Your task to perform on an android device: clear history in the chrome app Image 0: 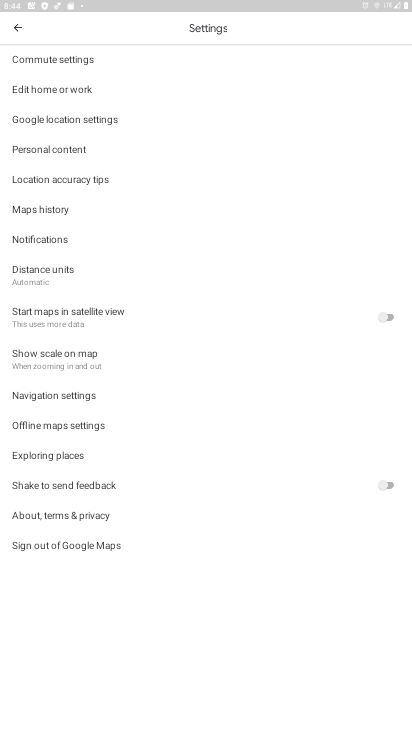
Step 0: press home button
Your task to perform on an android device: clear history in the chrome app Image 1: 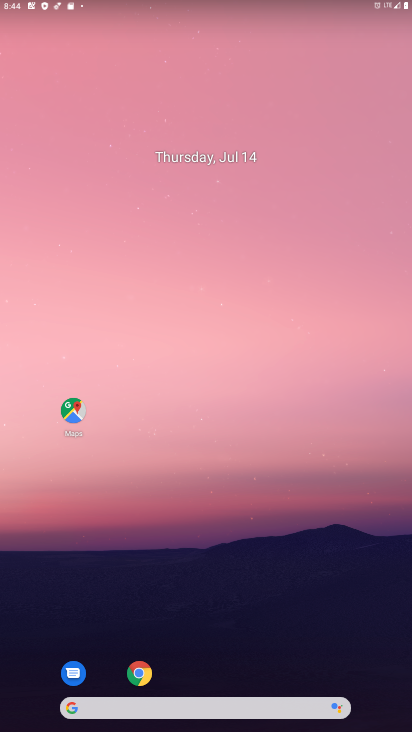
Step 1: click (140, 672)
Your task to perform on an android device: clear history in the chrome app Image 2: 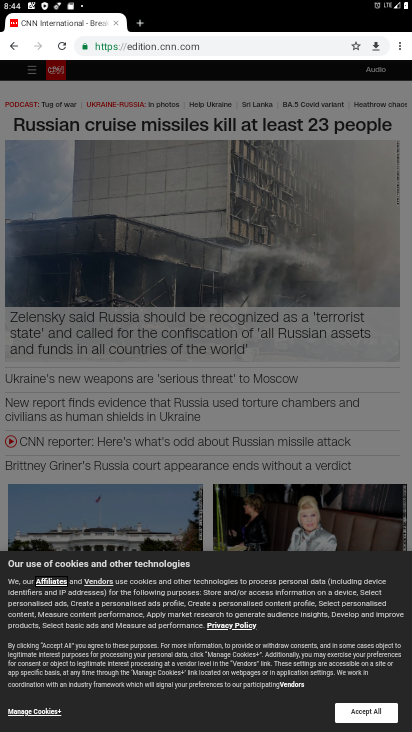
Step 2: click (399, 46)
Your task to perform on an android device: clear history in the chrome app Image 3: 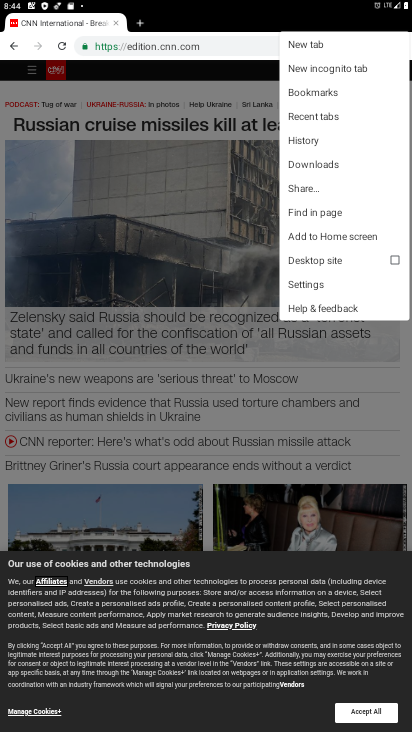
Step 3: click (310, 143)
Your task to perform on an android device: clear history in the chrome app Image 4: 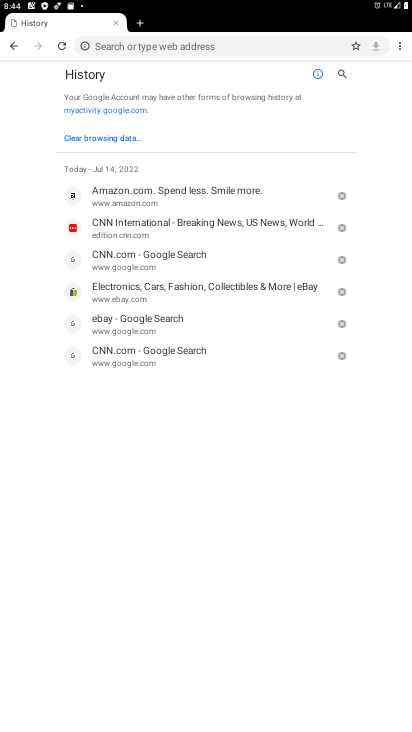
Step 4: click (120, 142)
Your task to perform on an android device: clear history in the chrome app Image 5: 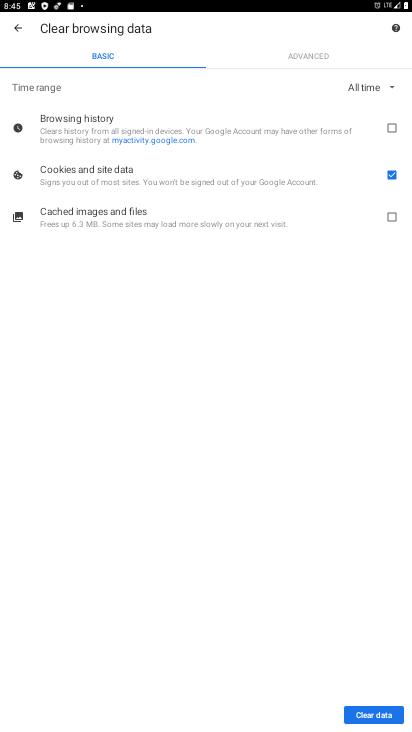
Step 5: click (393, 218)
Your task to perform on an android device: clear history in the chrome app Image 6: 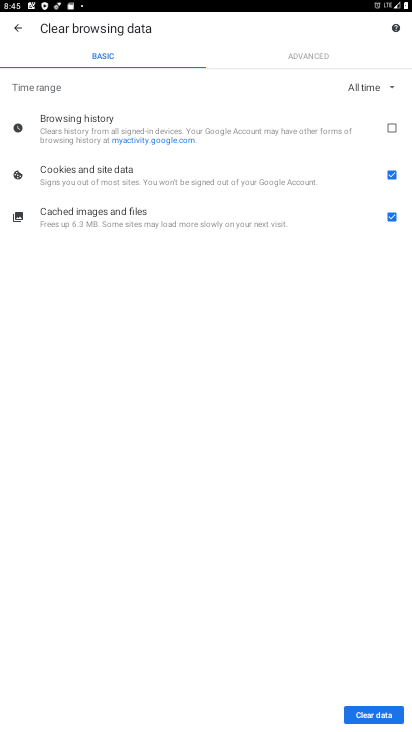
Step 6: click (393, 129)
Your task to perform on an android device: clear history in the chrome app Image 7: 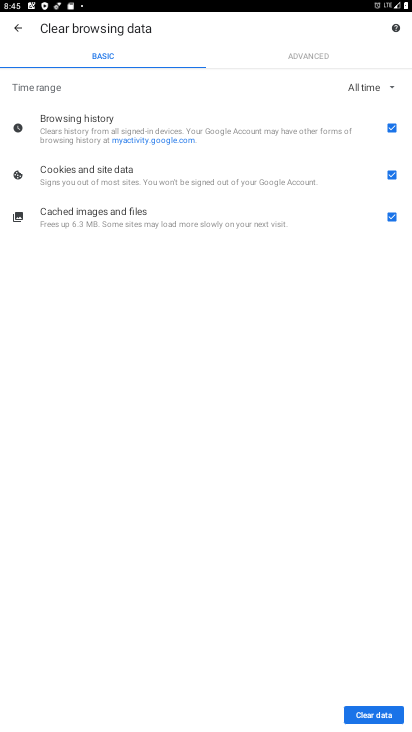
Step 7: click (381, 713)
Your task to perform on an android device: clear history in the chrome app Image 8: 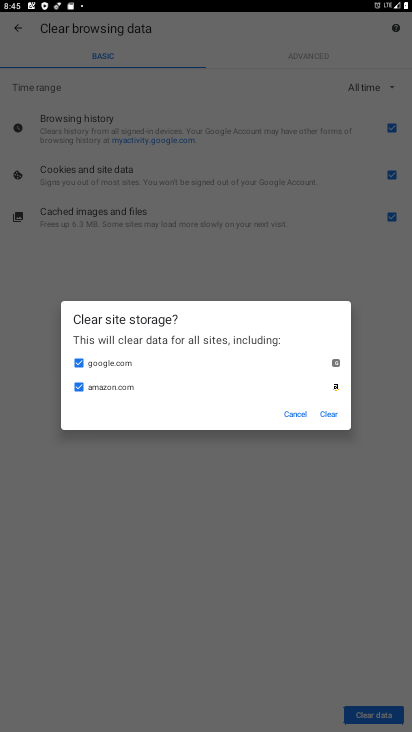
Step 8: click (332, 413)
Your task to perform on an android device: clear history in the chrome app Image 9: 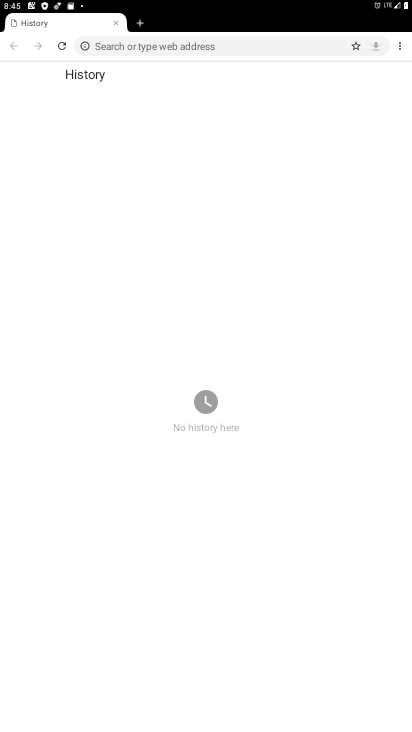
Step 9: task complete